Your task to perform on an android device: set an alarm Image 0: 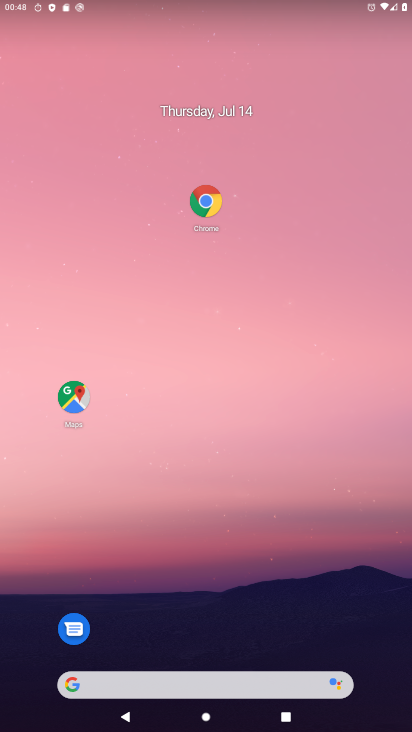
Step 0: drag from (211, 655) to (181, 111)
Your task to perform on an android device: set an alarm Image 1: 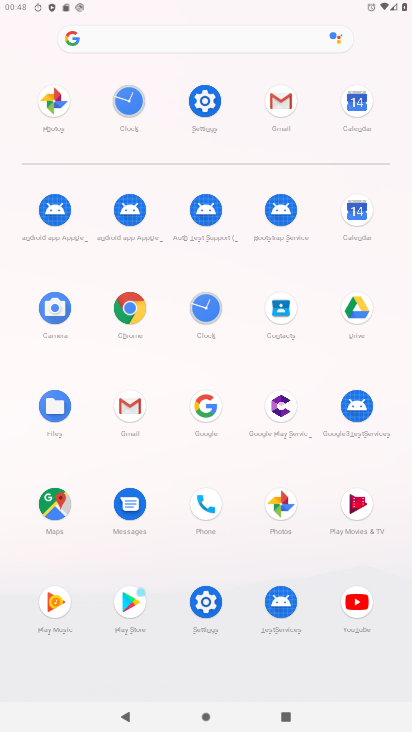
Step 1: click (207, 304)
Your task to perform on an android device: set an alarm Image 2: 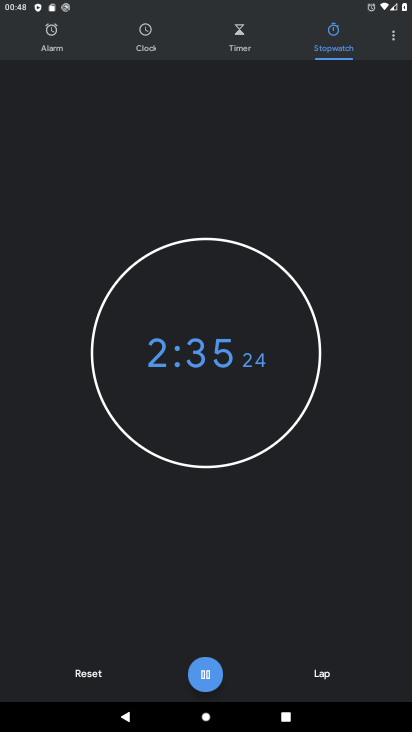
Step 2: click (59, 34)
Your task to perform on an android device: set an alarm Image 3: 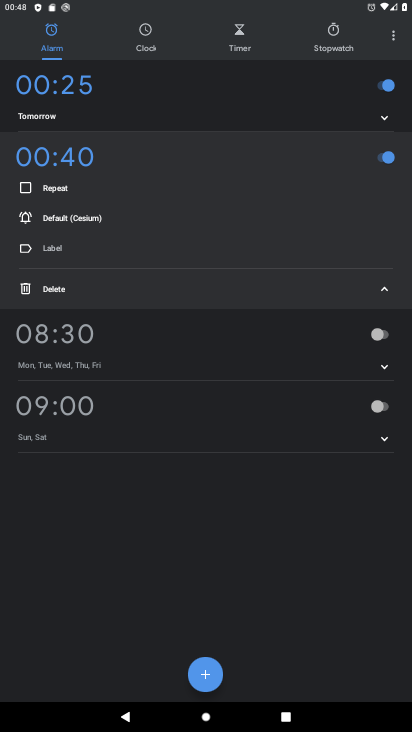
Step 3: click (196, 668)
Your task to perform on an android device: set an alarm Image 4: 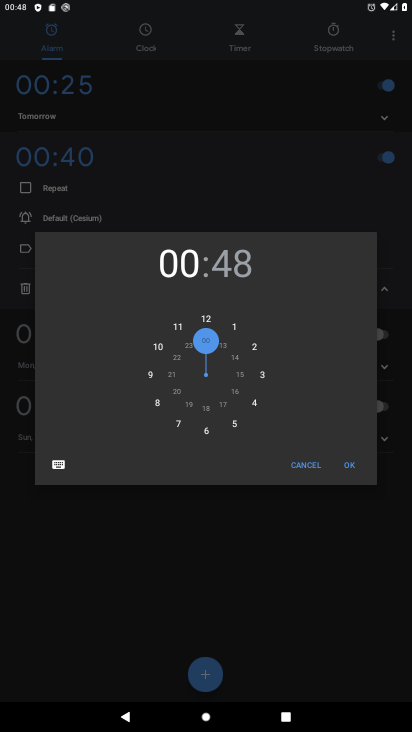
Step 4: click (355, 468)
Your task to perform on an android device: set an alarm Image 5: 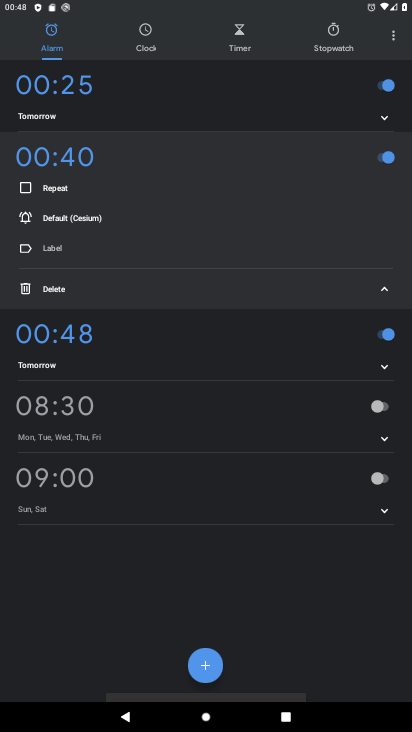
Step 5: task complete